Your task to perform on an android device: Search for 'The Girl on the Train' on Goodreads. Image 0: 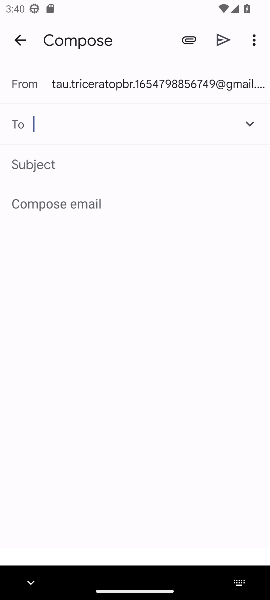
Step 0: press home button
Your task to perform on an android device: Search for 'The Girl on the Train' on Goodreads. Image 1: 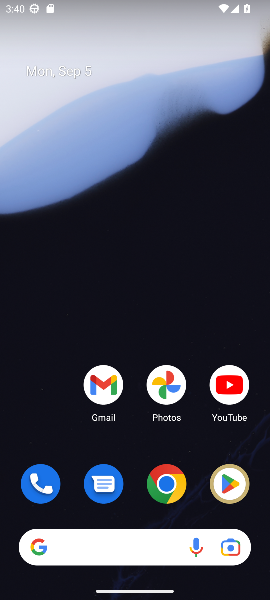
Step 1: click (166, 485)
Your task to perform on an android device: Search for 'The Girl on the Train' on Goodreads. Image 2: 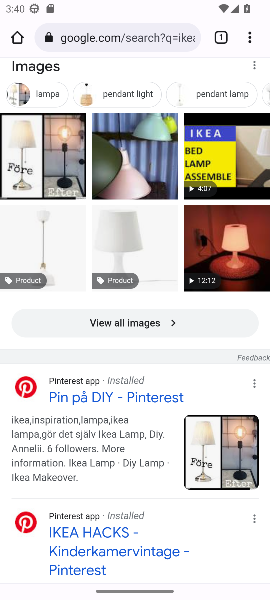
Step 2: click (138, 38)
Your task to perform on an android device: Search for 'The Girl on the Train' on Goodreads. Image 3: 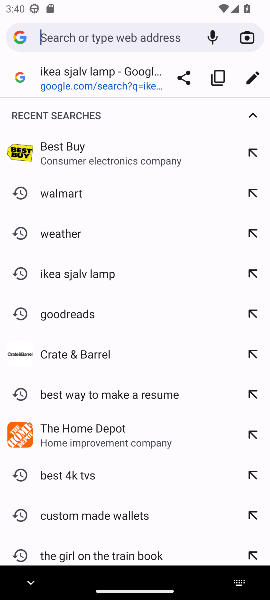
Step 3: type "Goodreads"
Your task to perform on an android device: Search for 'The Girl on the Train' on Goodreads. Image 4: 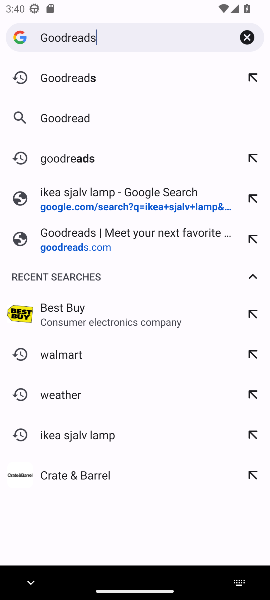
Step 4: press enter
Your task to perform on an android device: Search for 'The Girl on the Train' on Goodreads. Image 5: 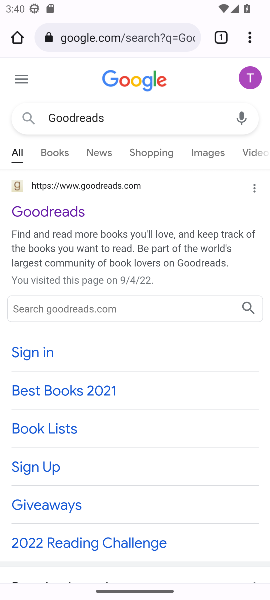
Step 5: click (66, 212)
Your task to perform on an android device: Search for 'The Girl on the Train' on Goodreads. Image 6: 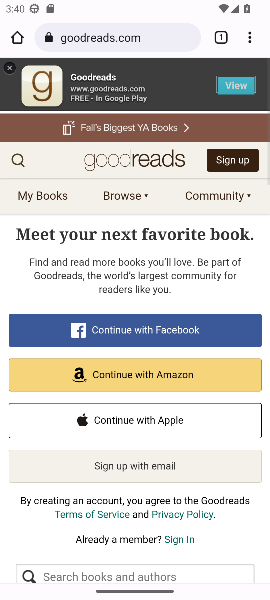
Step 6: click (13, 156)
Your task to perform on an android device: Search for 'The Girl on the Train' on Goodreads. Image 7: 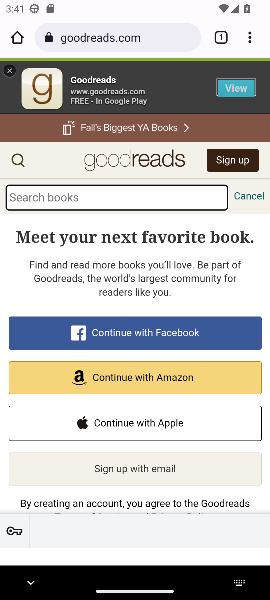
Step 7: type "The Girl on the Train"
Your task to perform on an android device: Search for 'The Girl on the Train' on Goodreads. Image 8: 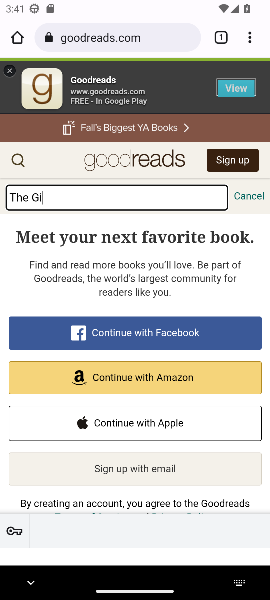
Step 8: press enter
Your task to perform on an android device: Search for 'The Girl on the Train' on Goodreads. Image 9: 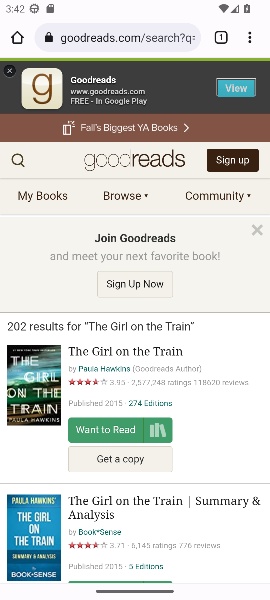
Step 9: task complete